Your task to perform on an android device: Open Google Image 0: 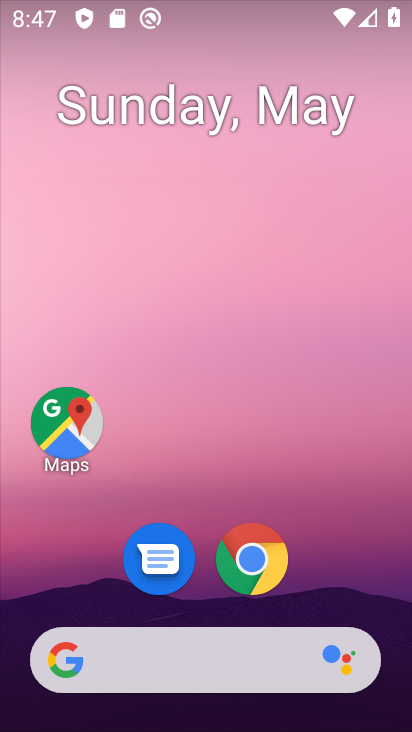
Step 0: drag from (353, 571) to (279, 24)
Your task to perform on an android device: Open Google Image 1: 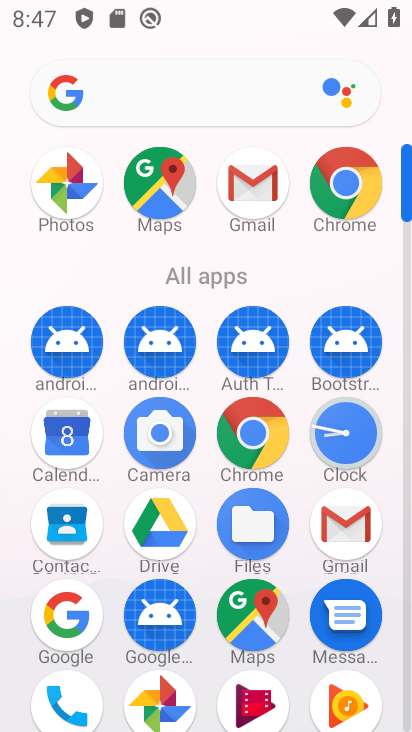
Step 1: click (71, 637)
Your task to perform on an android device: Open Google Image 2: 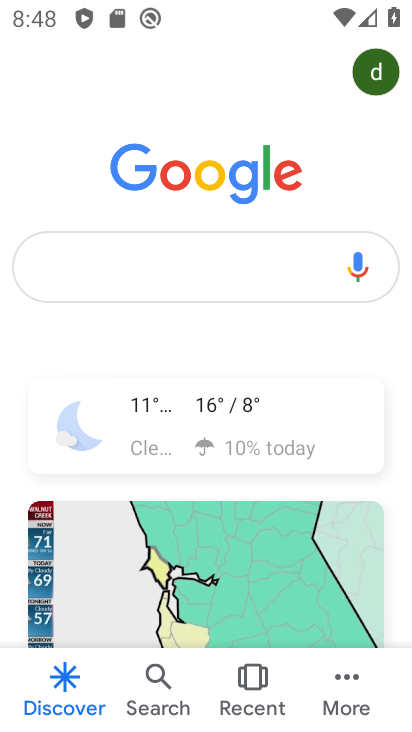
Step 2: task complete